Your task to perform on an android device: toggle location history Image 0: 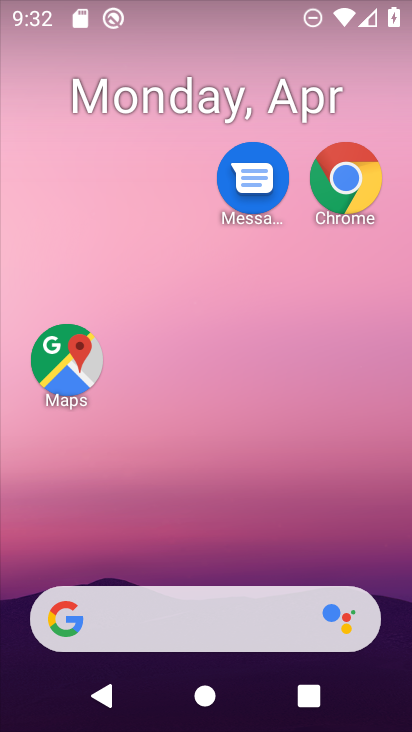
Step 0: click (317, 135)
Your task to perform on an android device: toggle location history Image 1: 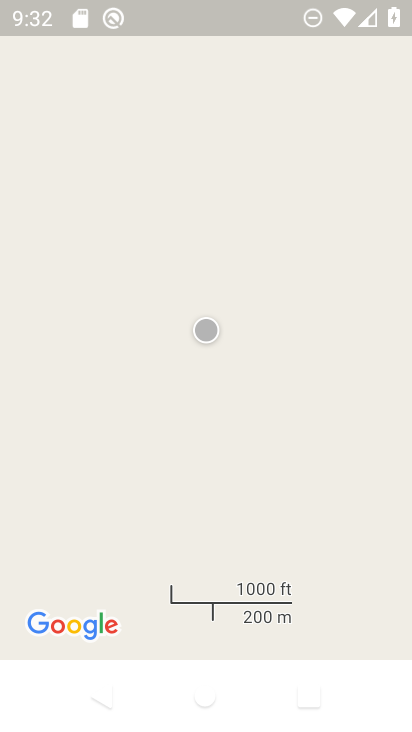
Step 1: press home button
Your task to perform on an android device: toggle location history Image 2: 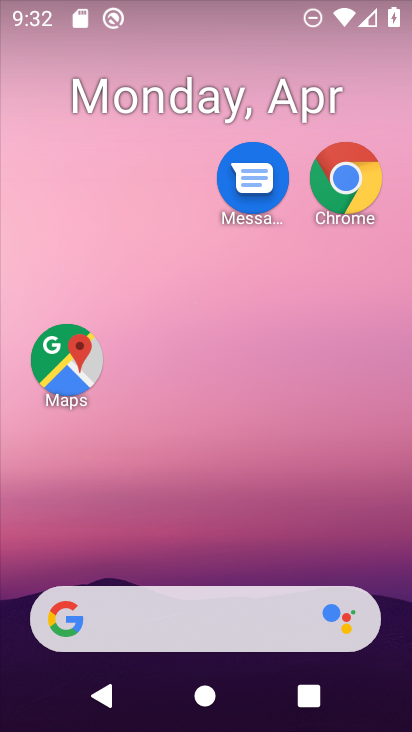
Step 2: drag from (268, 484) to (356, 99)
Your task to perform on an android device: toggle location history Image 3: 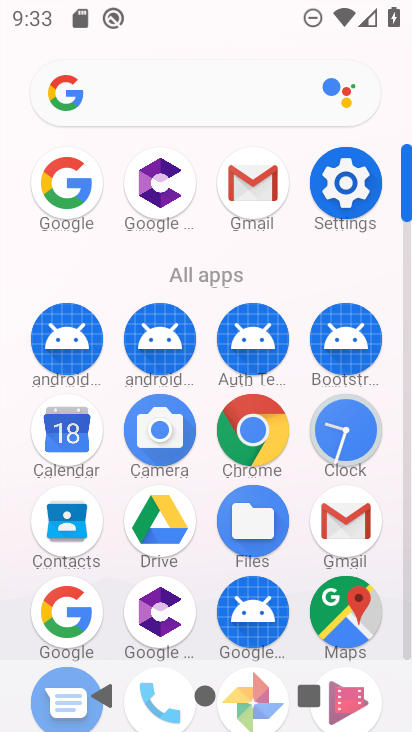
Step 3: click (368, 194)
Your task to perform on an android device: toggle location history Image 4: 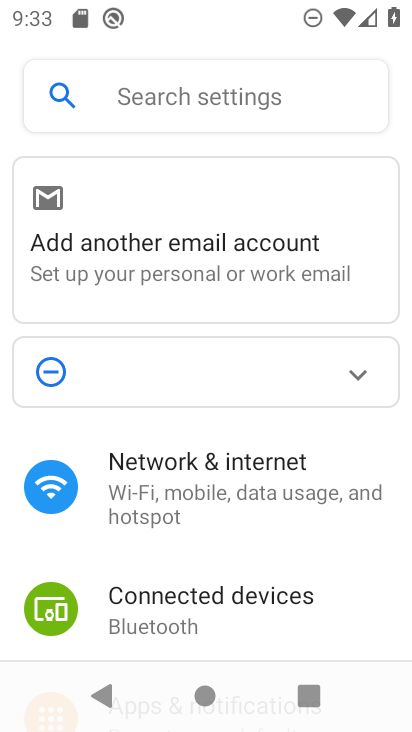
Step 4: drag from (267, 613) to (289, 147)
Your task to perform on an android device: toggle location history Image 5: 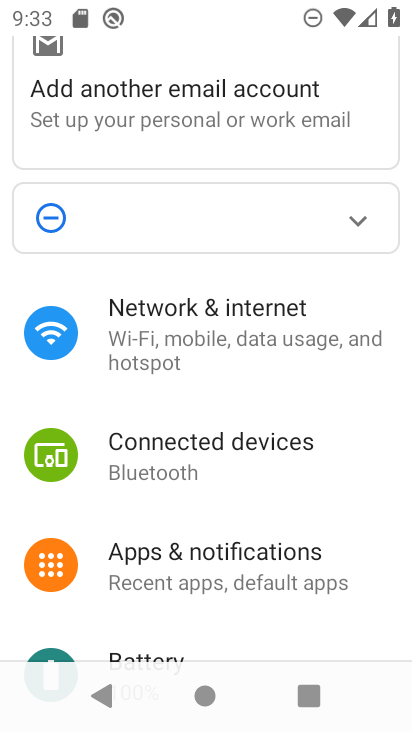
Step 5: drag from (324, 561) to (409, 225)
Your task to perform on an android device: toggle location history Image 6: 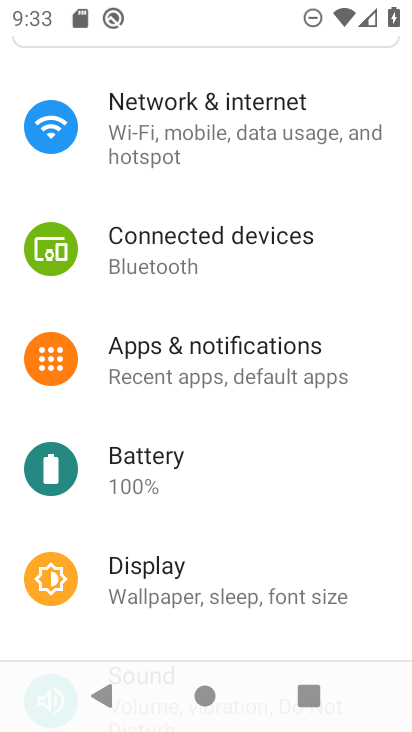
Step 6: drag from (274, 519) to (334, 209)
Your task to perform on an android device: toggle location history Image 7: 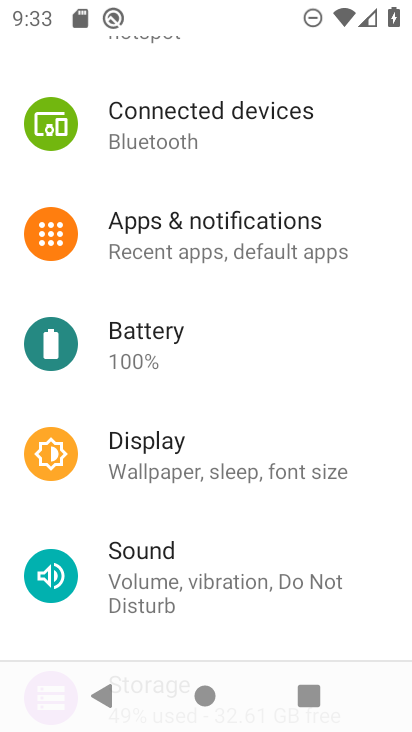
Step 7: drag from (257, 524) to (311, 198)
Your task to perform on an android device: toggle location history Image 8: 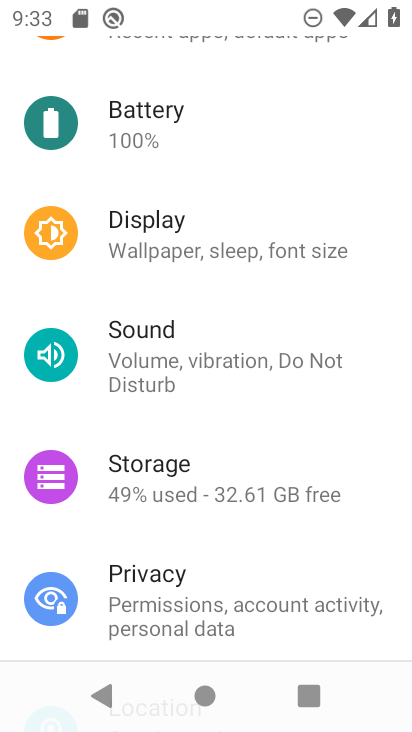
Step 8: drag from (233, 593) to (291, 165)
Your task to perform on an android device: toggle location history Image 9: 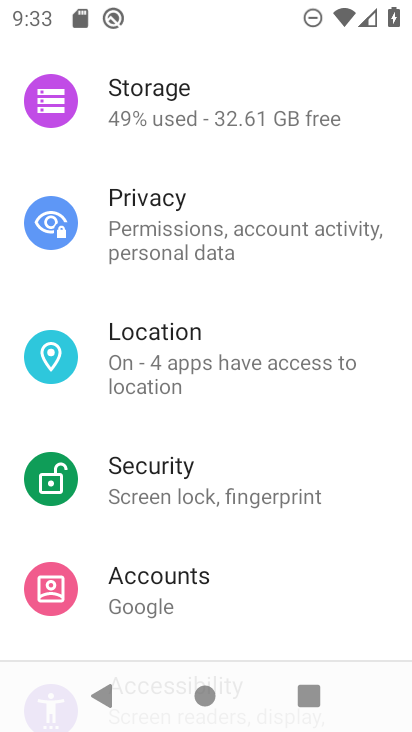
Step 9: click (261, 384)
Your task to perform on an android device: toggle location history Image 10: 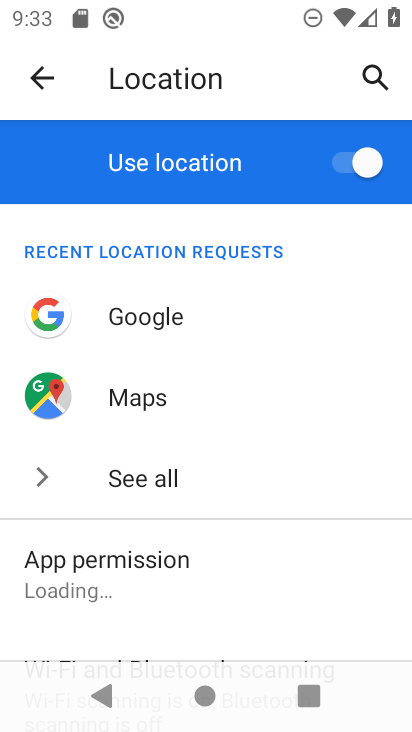
Step 10: drag from (274, 552) to (318, 139)
Your task to perform on an android device: toggle location history Image 11: 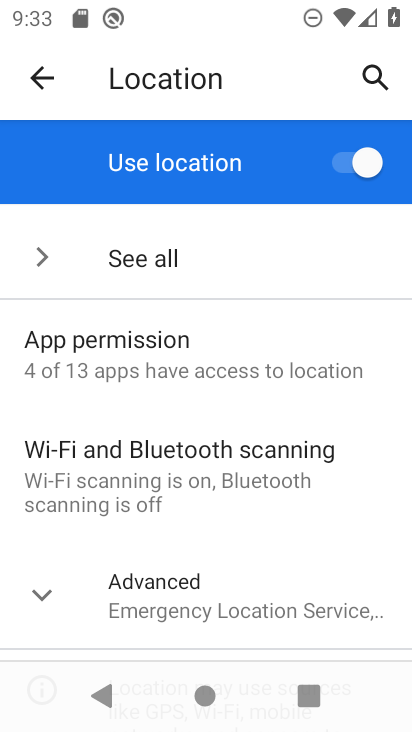
Step 11: click (225, 597)
Your task to perform on an android device: toggle location history Image 12: 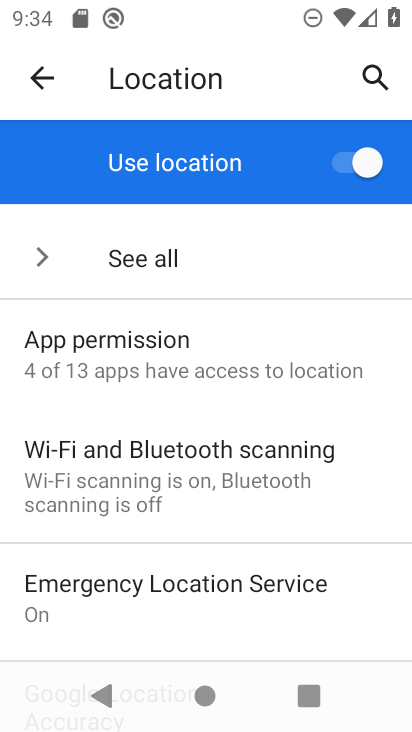
Step 12: drag from (221, 597) to (260, 345)
Your task to perform on an android device: toggle location history Image 13: 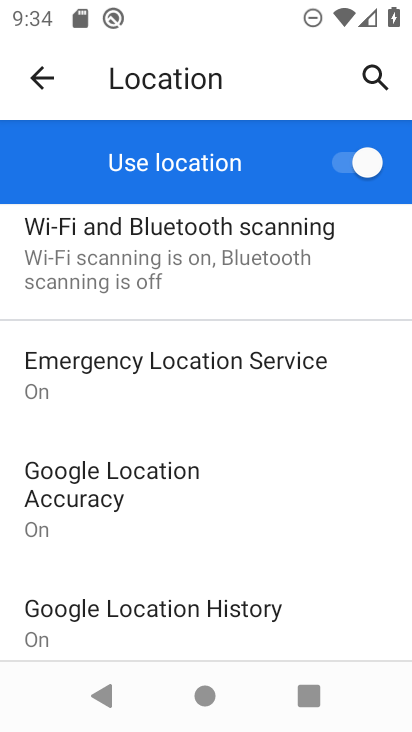
Step 13: click (225, 616)
Your task to perform on an android device: toggle location history Image 14: 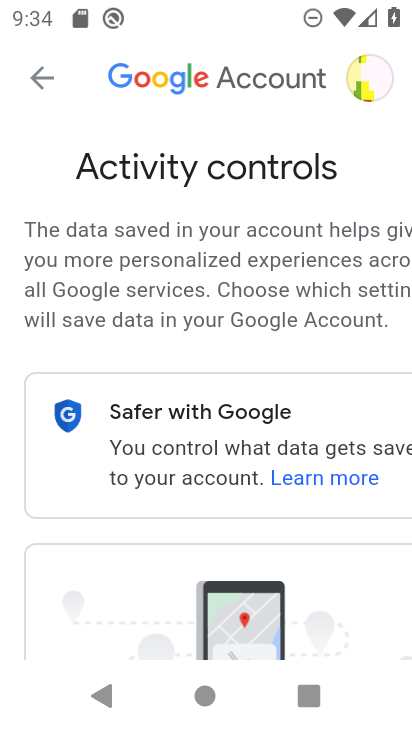
Step 14: click (152, 238)
Your task to perform on an android device: toggle location history Image 15: 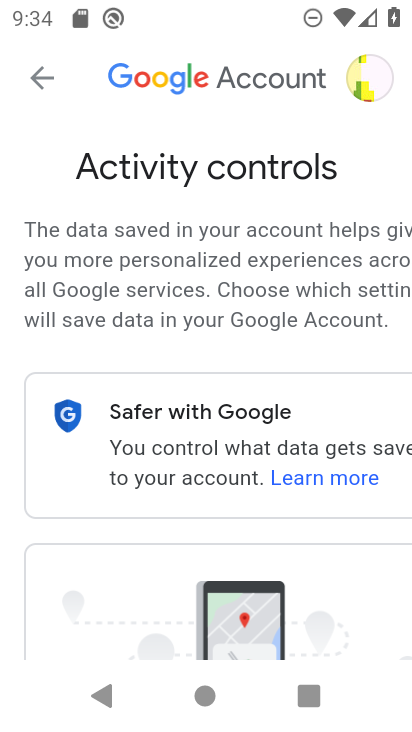
Step 15: drag from (302, 540) to (170, 201)
Your task to perform on an android device: toggle location history Image 16: 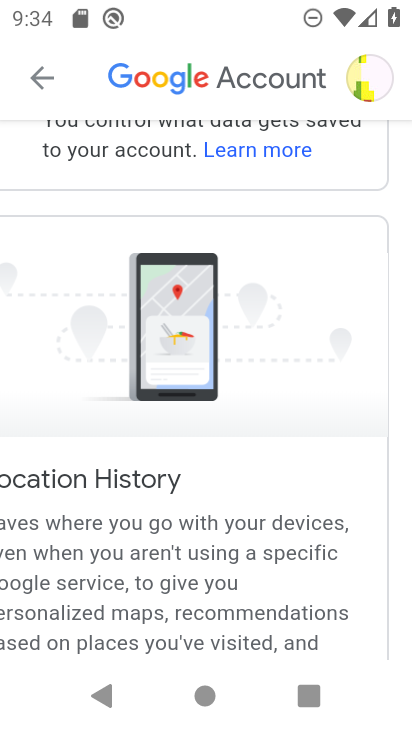
Step 16: drag from (238, 513) to (160, 173)
Your task to perform on an android device: toggle location history Image 17: 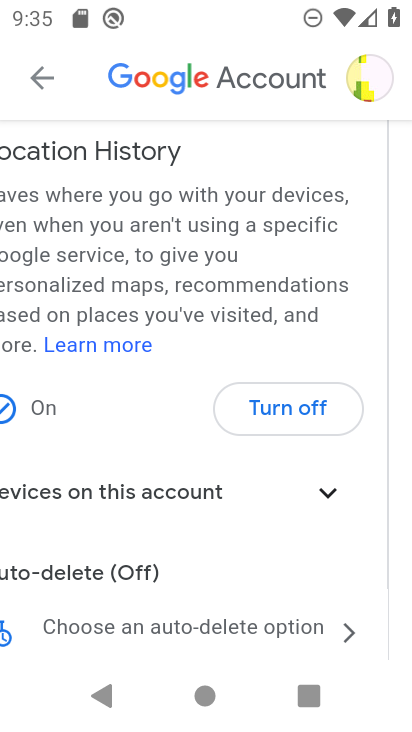
Step 17: click (348, 409)
Your task to perform on an android device: toggle location history Image 18: 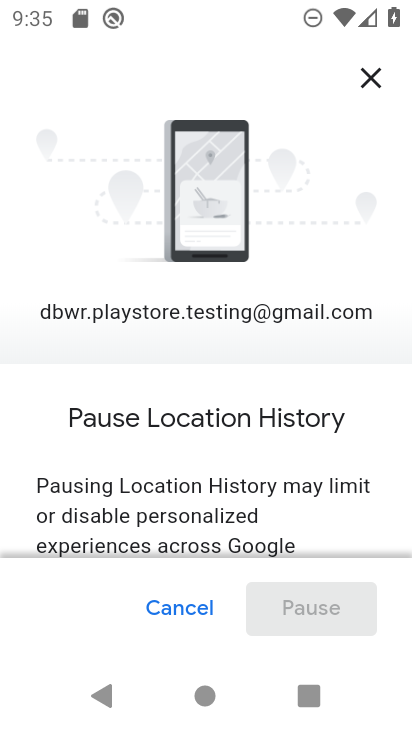
Step 18: drag from (346, 443) to (380, 110)
Your task to perform on an android device: toggle location history Image 19: 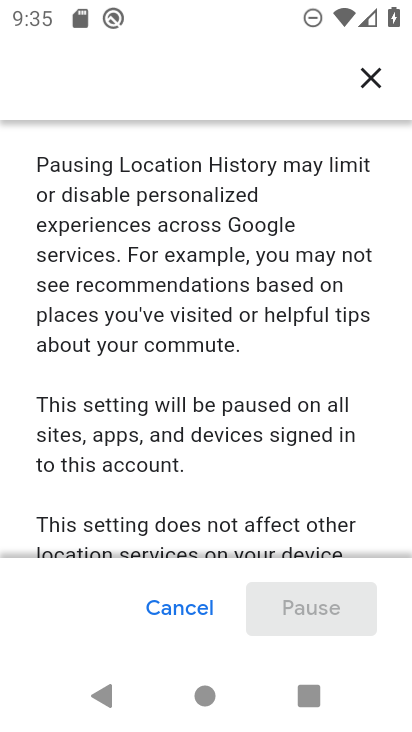
Step 19: drag from (305, 274) to (347, 3)
Your task to perform on an android device: toggle location history Image 20: 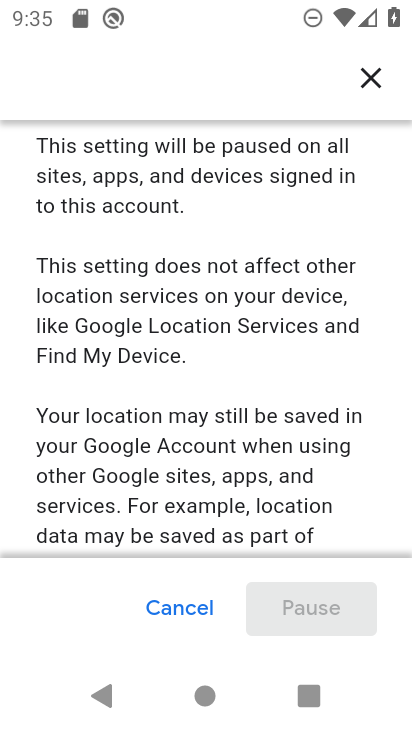
Step 20: drag from (310, 413) to (342, 11)
Your task to perform on an android device: toggle location history Image 21: 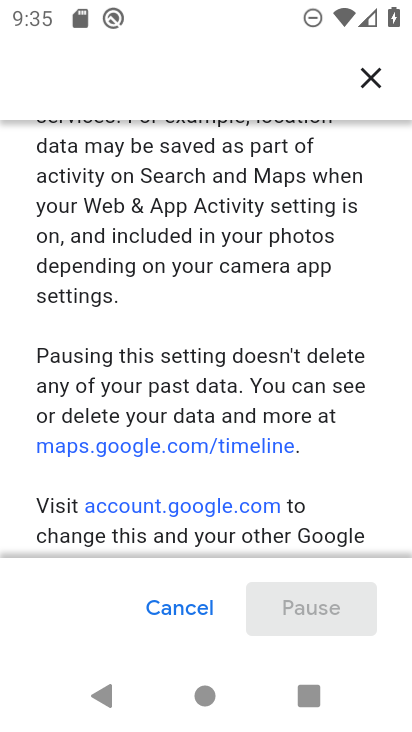
Step 21: drag from (271, 442) to (310, 87)
Your task to perform on an android device: toggle location history Image 22: 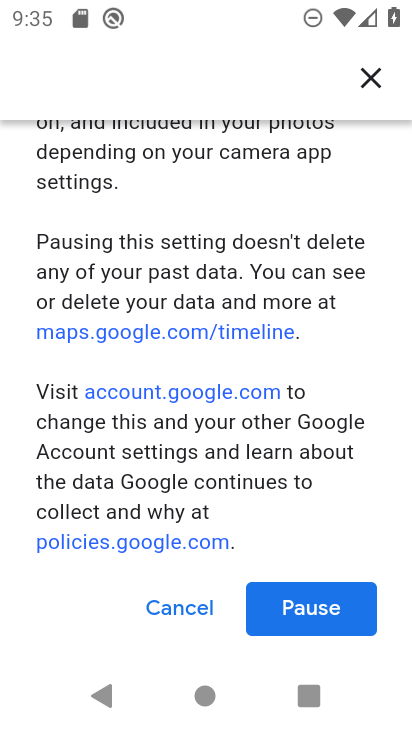
Step 22: click (297, 630)
Your task to perform on an android device: toggle location history Image 23: 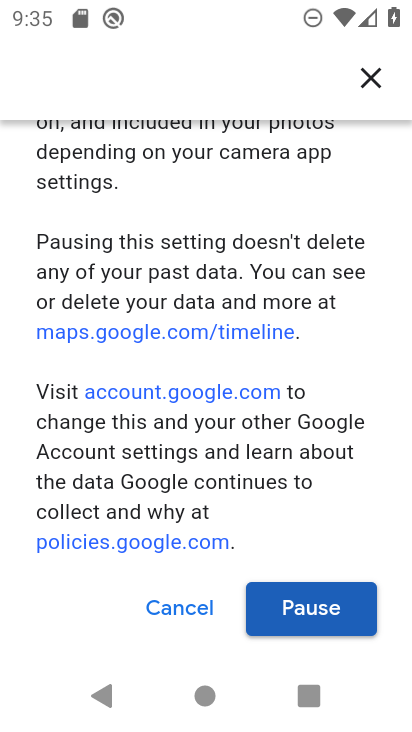
Step 23: drag from (330, 518) to (329, 165)
Your task to perform on an android device: toggle location history Image 24: 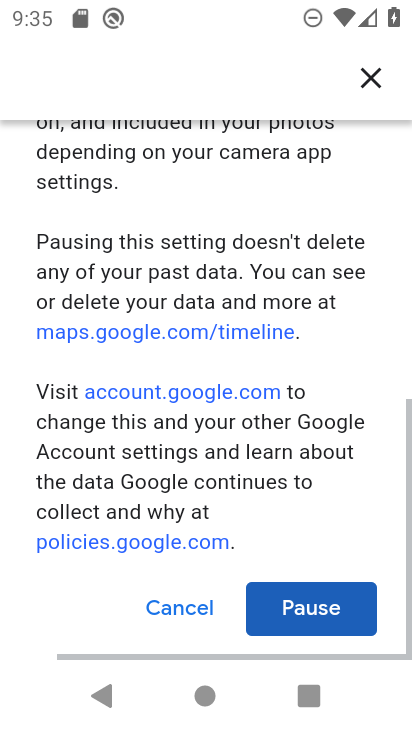
Step 24: click (323, 621)
Your task to perform on an android device: toggle location history Image 25: 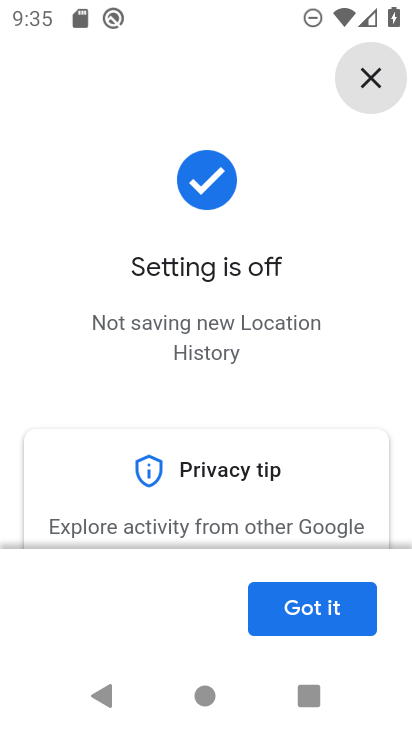
Step 25: drag from (309, 471) to (293, 85)
Your task to perform on an android device: toggle location history Image 26: 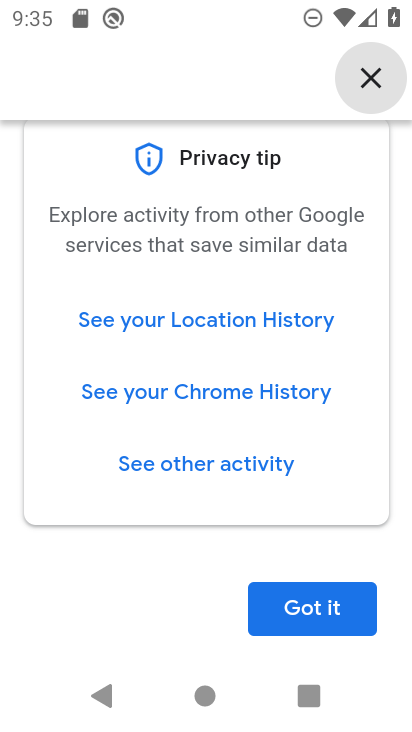
Step 26: click (314, 613)
Your task to perform on an android device: toggle location history Image 27: 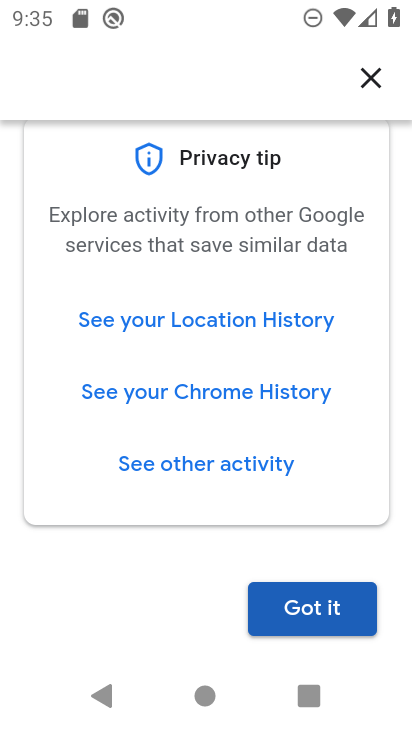
Step 27: click (289, 598)
Your task to perform on an android device: toggle location history Image 28: 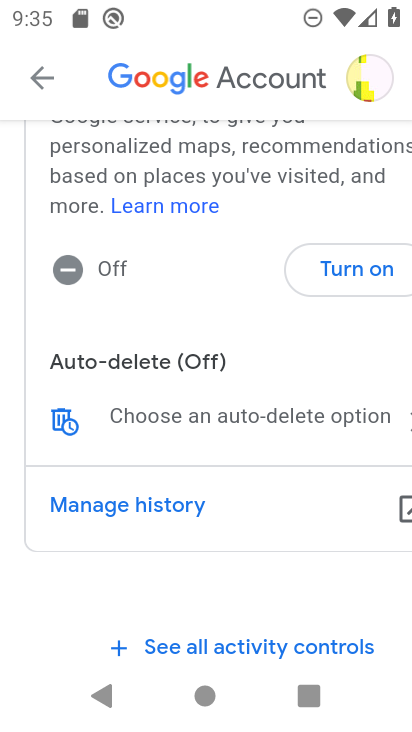
Step 28: task complete